Your task to perform on an android device: Search for the best running shoes on Nike. Image 0: 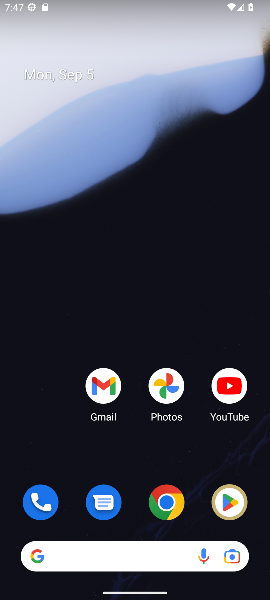
Step 0: drag from (203, 379) to (133, 24)
Your task to perform on an android device: Search for the best running shoes on Nike. Image 1: 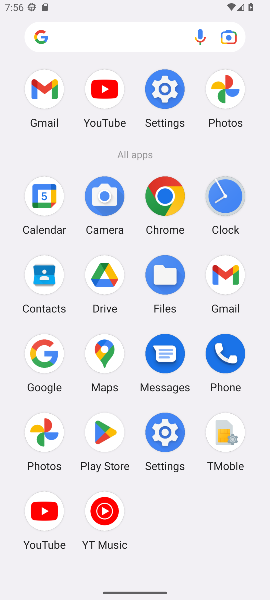
Step 1: click (54, 353)
Your task to perform on an android device: Search for the best running shoes on Nike. Image 2: 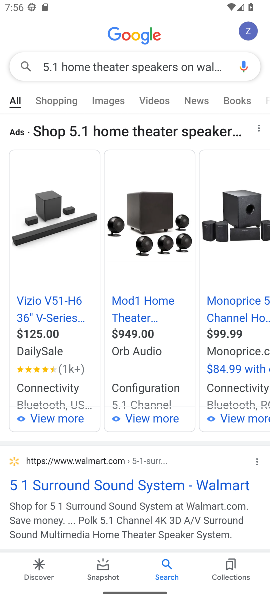
Step 2: press back button
Your task to perform on an android device: Search for the best running shoes on Nike. Image 3: 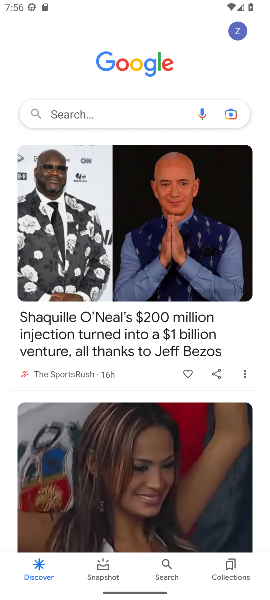
Step 3: click (90, 122)
Your task to perform on an android device: Search for the best running shoes on Nike. Image 4: 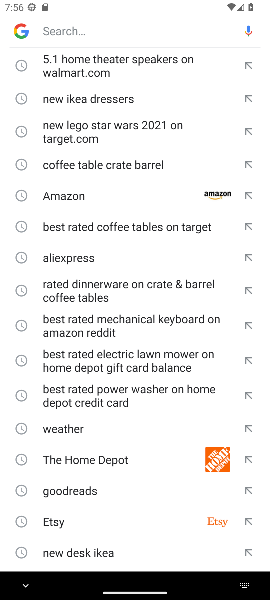
Step 4: type " best running shoes on Nike"
Your task to perform on an android device: Search for the best running shoes on Nike. Image 5: 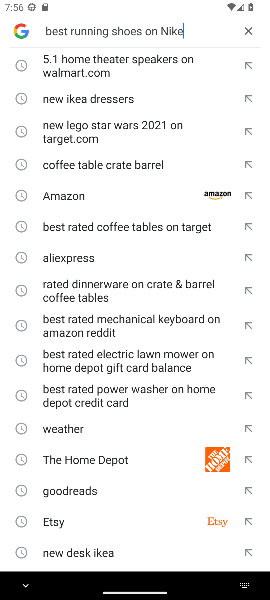
Step 5: click (156, 61)
Your task to perform on an android device: Search for the best running shoes on Nike. Image 6: 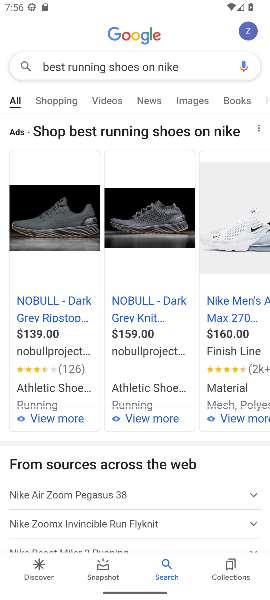
Step 6: task complete